Your task to perform on an android device: Show me popular videos on Youtube Image 0: 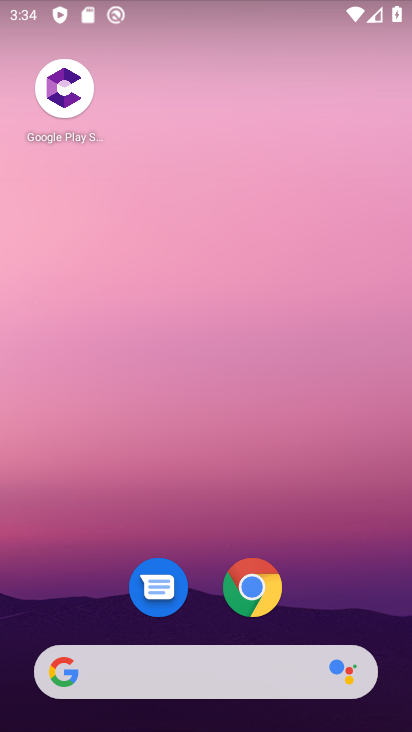
Step 0: drag from (349, 613) to (340, 3)
Your task to perform on an android device: Show me popular videos on Youtube Image 1: 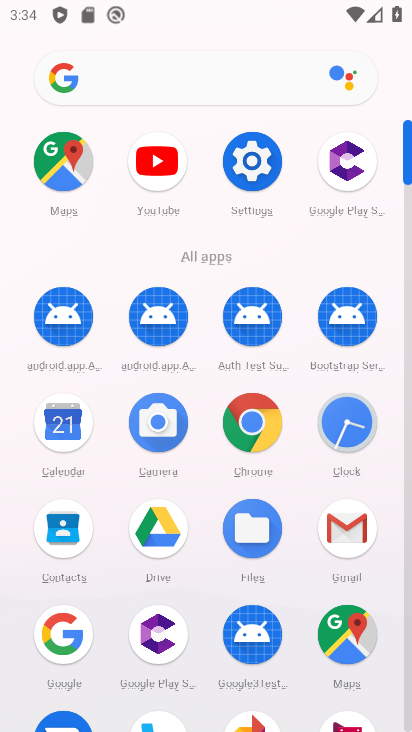
Step 1: click (148, 169)
Your task to perform on an android device: Show me popular videos on Youtube Image 2: 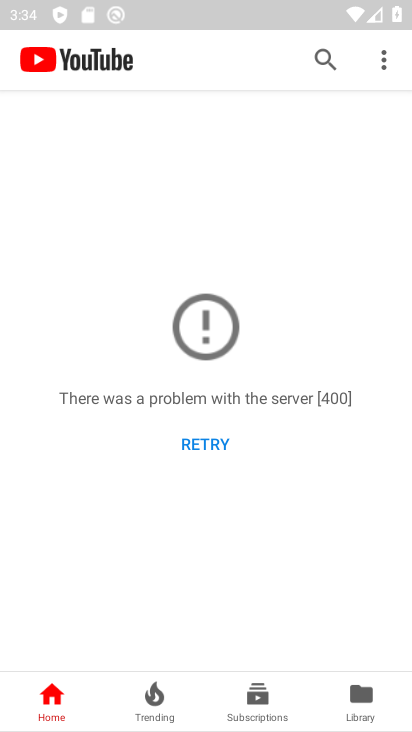
Step 2: task complete